Your task to perform on an android device: How big is the moon? Image 0: 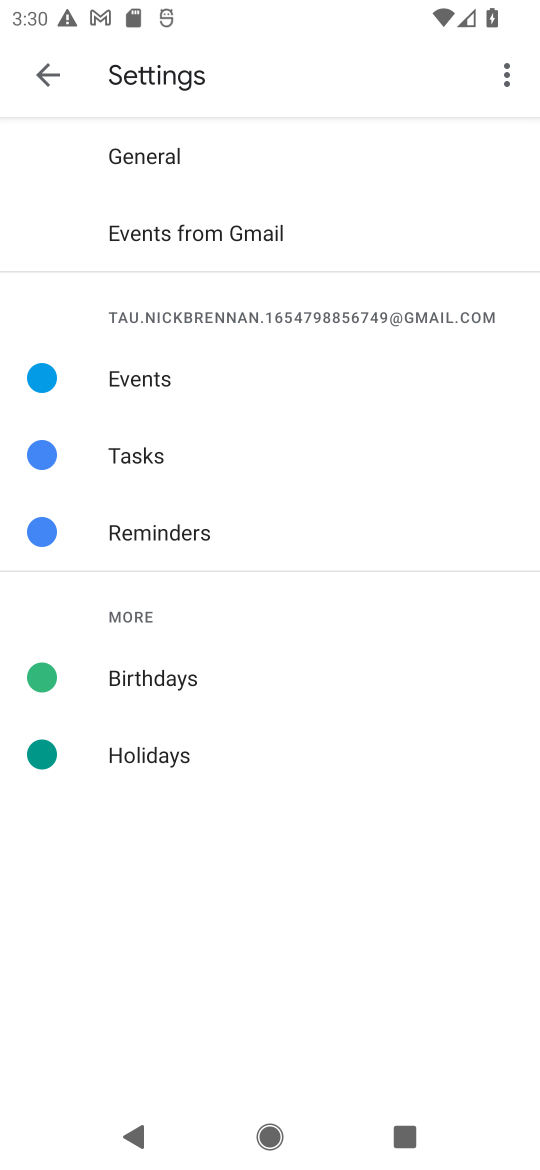
Step 0: press home button
Your task to perform on an android device: How big is the moon? Image 1: 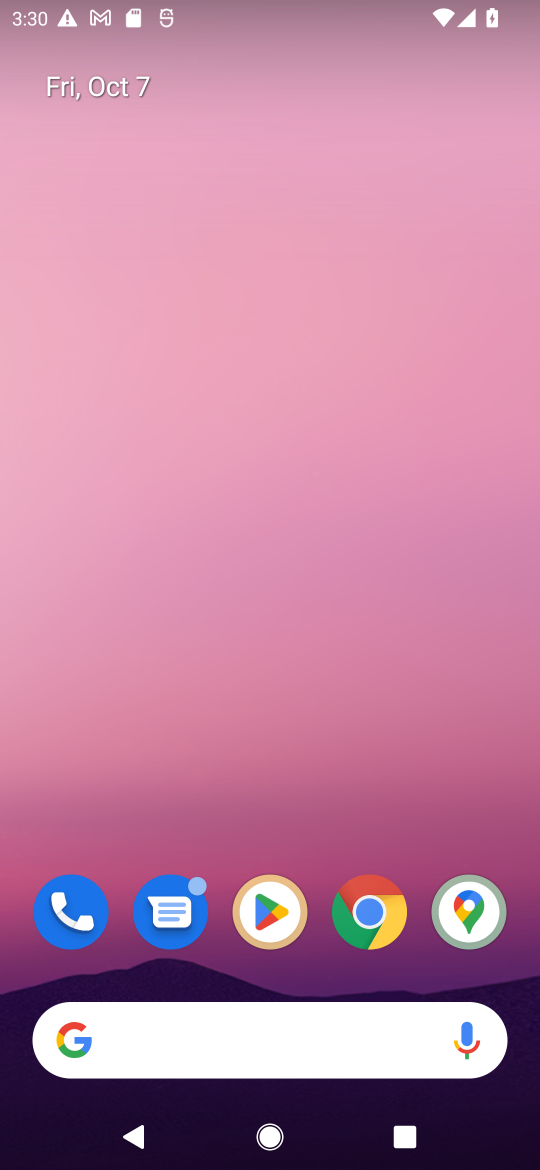
Step 1: drag from (212, 966) to (211, 258)
Your task to perform on an android device: How big is the moon? Image 2: 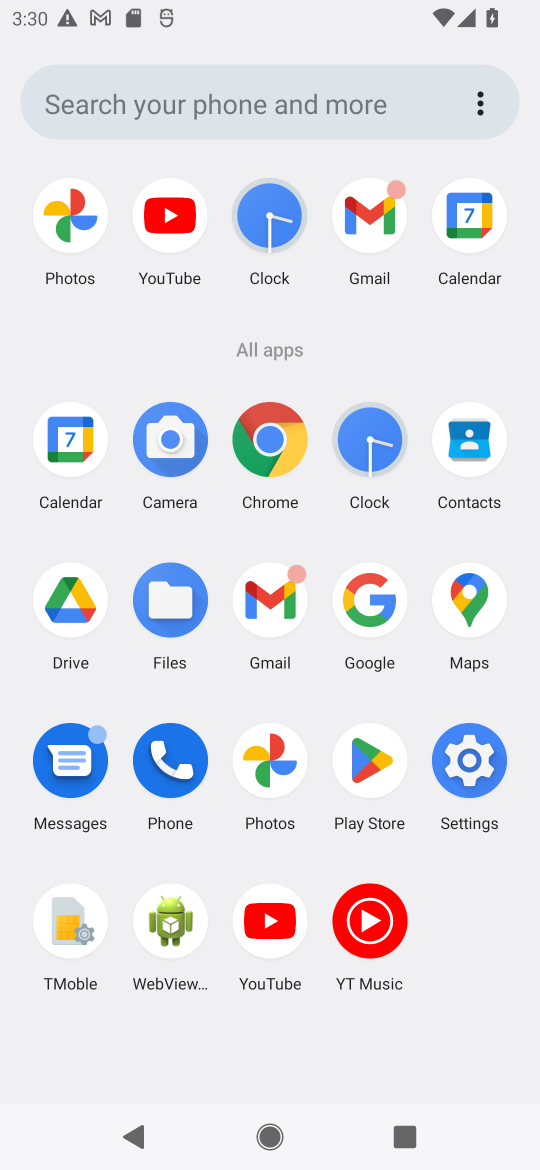
Step 2: click (371, 591)
Your task to perform on an android device: How big is the moon? Image 3: 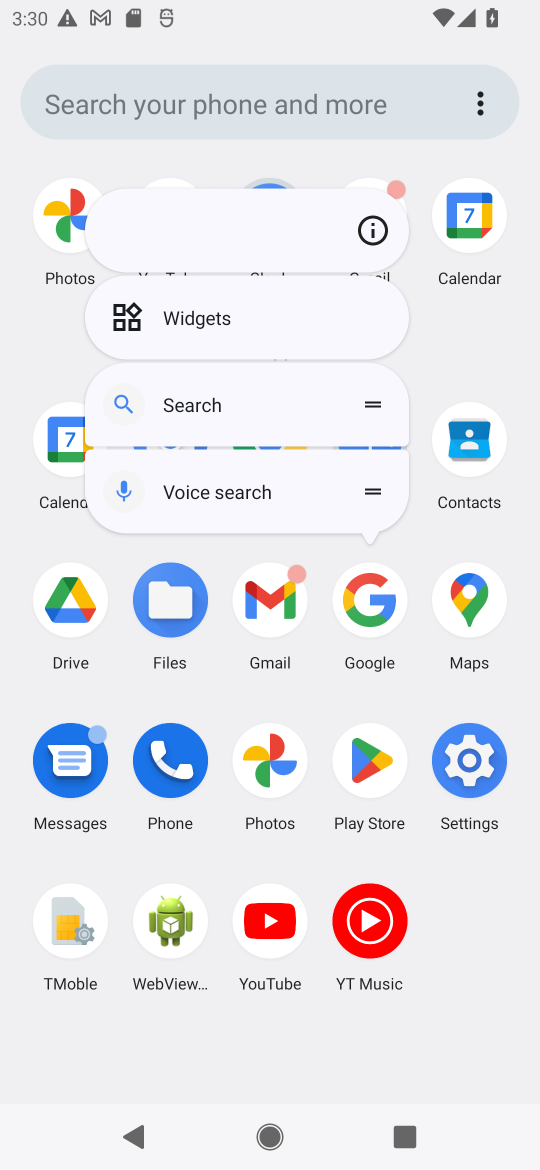
Step 3: click (371, 591)
Your task to perform on an android device: How big is the moon? Image 4: 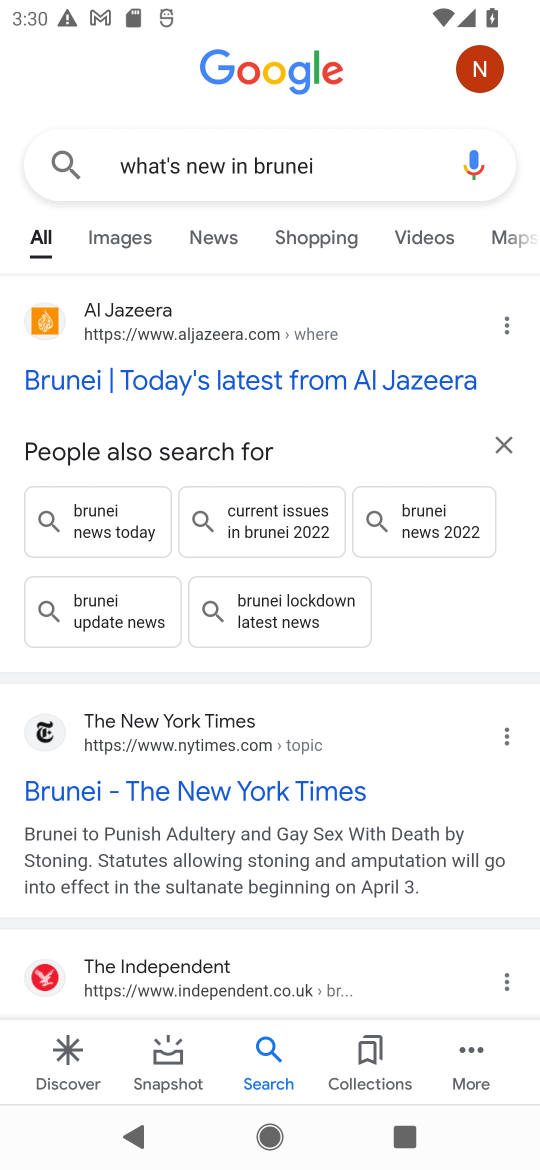
Step 4: click (330, 159)
Your task to perform on an android device: How big is the moon? Image 5: 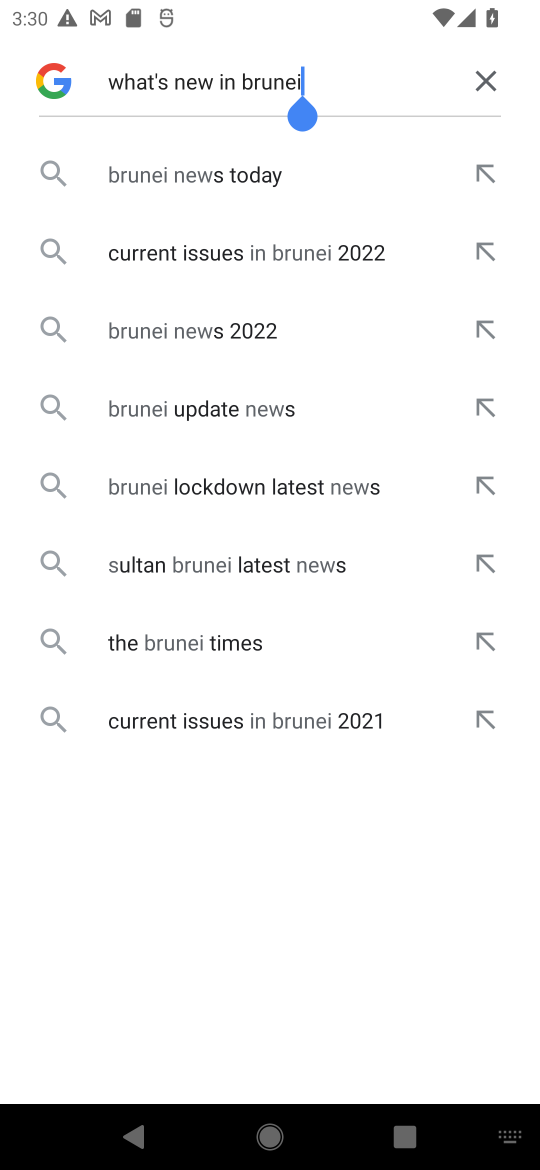
Step 5: click (474, 77)
Your task to perform on an android device: How big is the moon? Image 6: 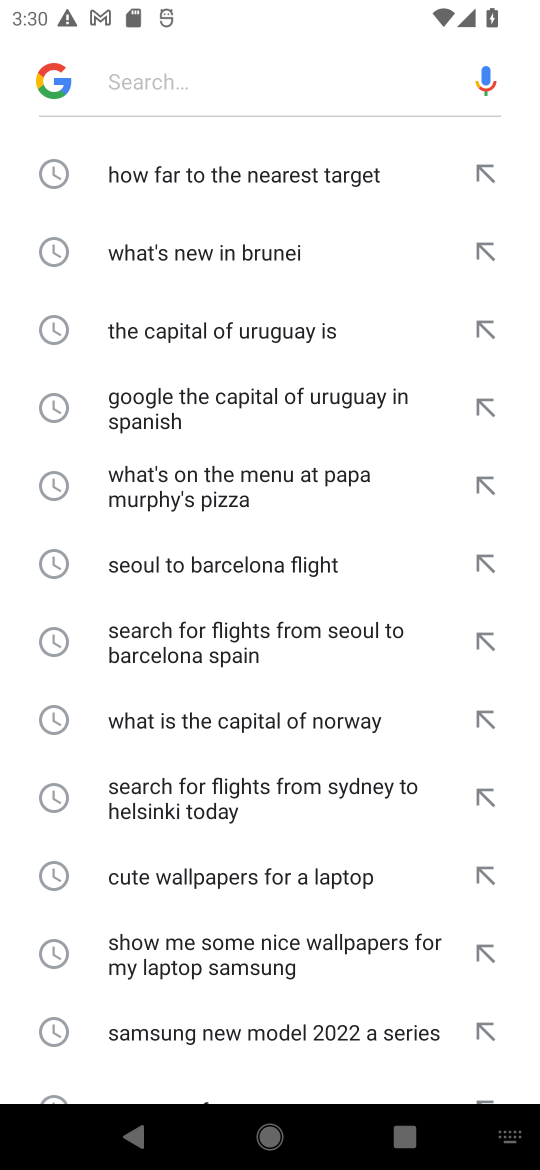
Step 6: click (295, 48)
Your task to perform on an android device: How big is the moon? Image 7: 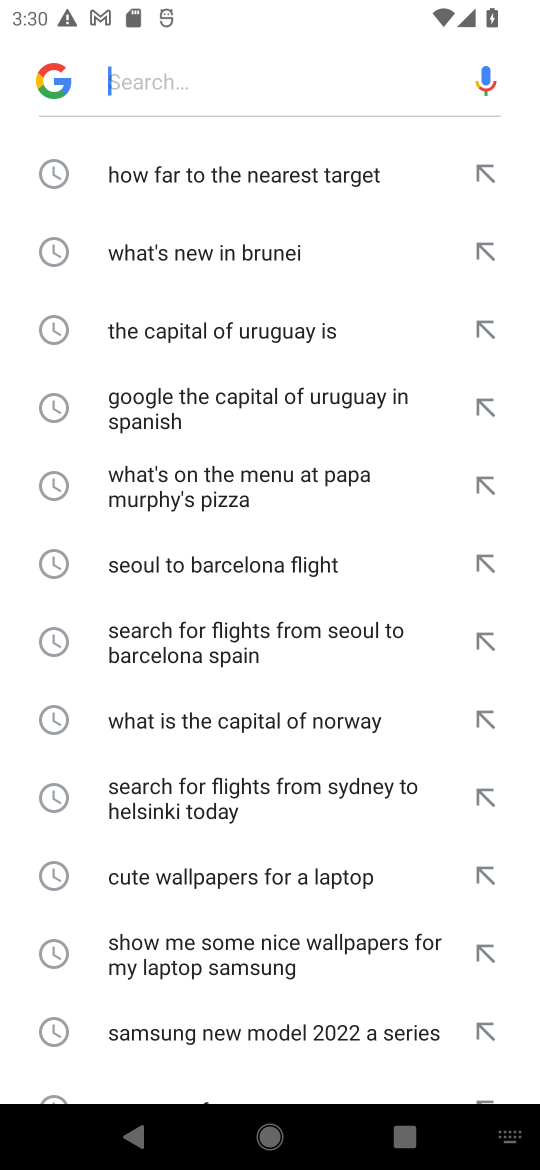
Step 7: type "How big is the moon? "
Your task to perform on an android device: How big is the moon? Image 8: 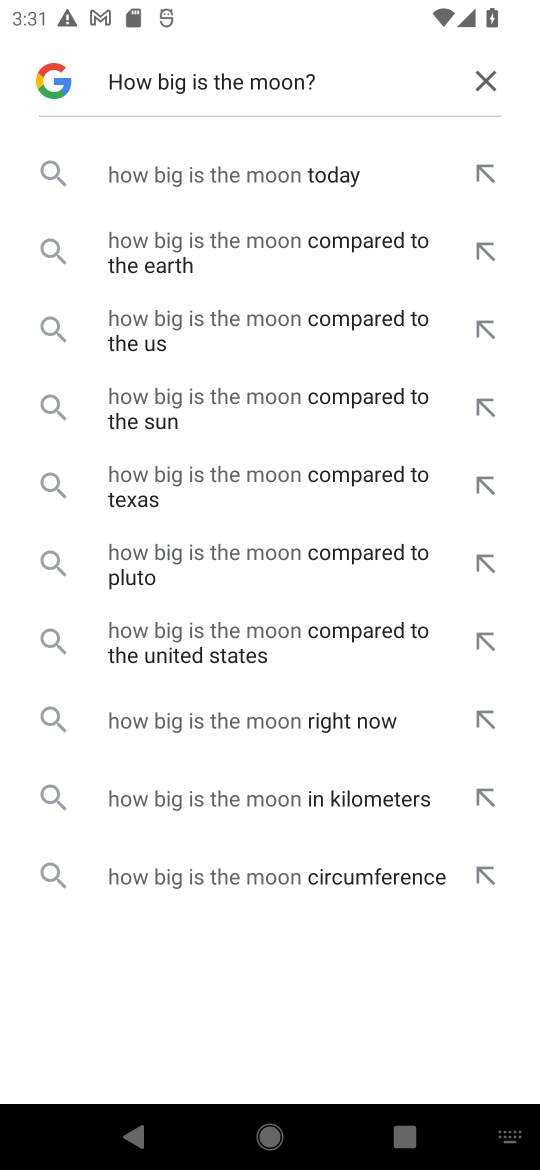
Step 8: click (186, 177)
Your task to perform on an android device: How big is the moon? Image 9: 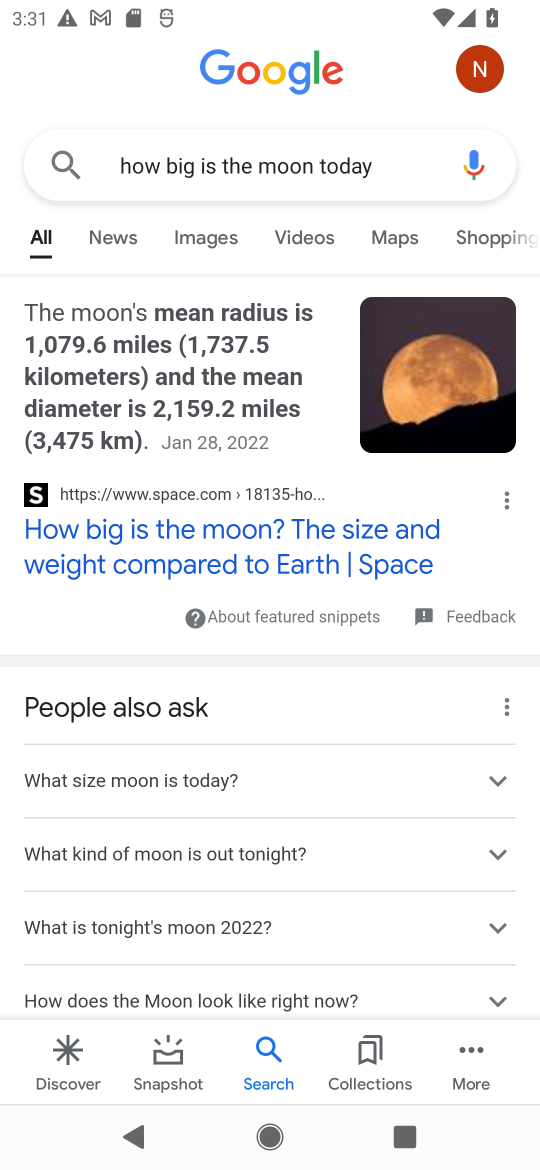
Step 9: task complete